Your task to perform on an android device: What's the weather going to be this weekend? Image 0: 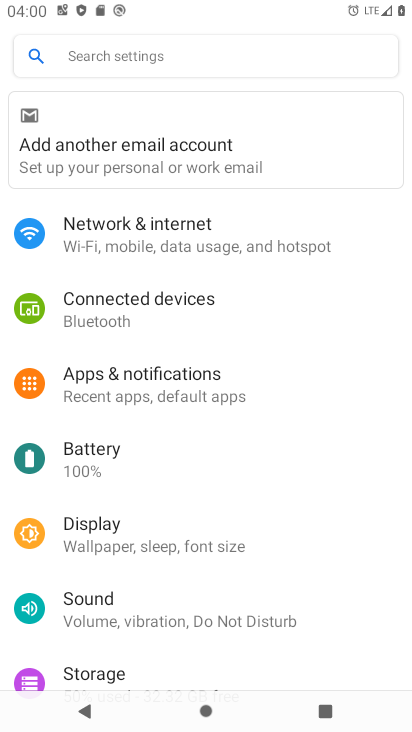
Step 0: press home button
Your task to perform on an android device: What's the weather going to be this weekend? Image 1: 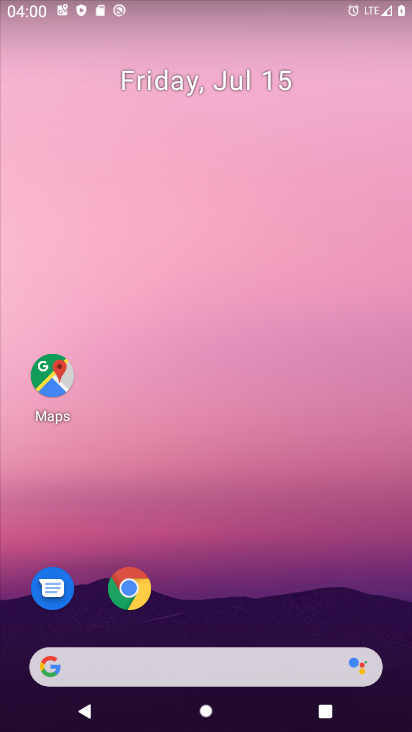
Step 1: drag from (174, 655) to (252, 214)
Your task to perform on an android device: What's the weather going to be this weekend? Image 2: 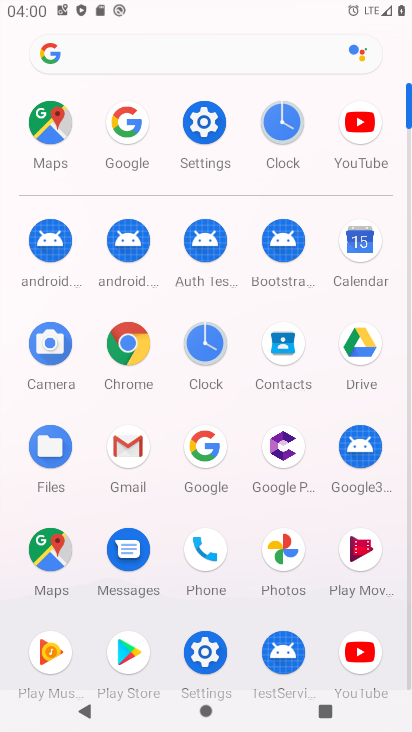
Step 2: click (201, 449)
Your task to perform on an android device: What's the weather going to be this weekend? Image 3: 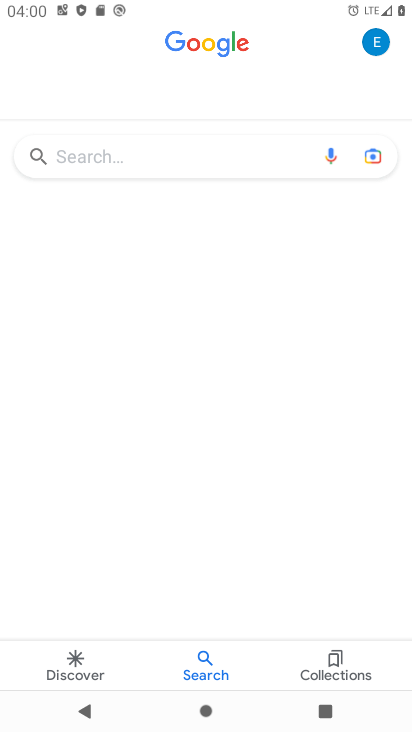
Step 3: click (209, 161)
Your task to perform on an android device: What's the weather going to be this weekend? Image 4: 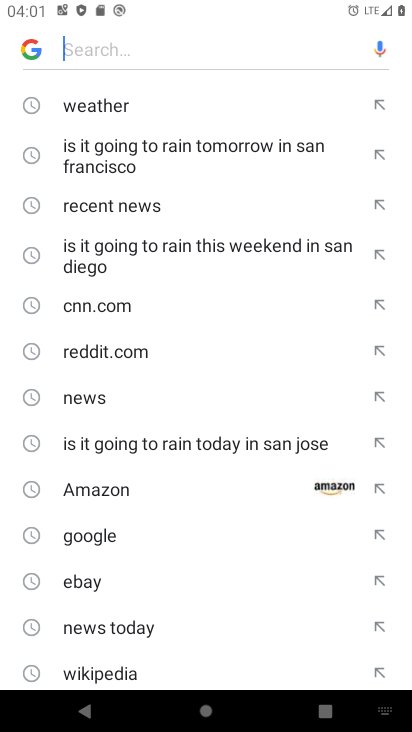
Step 4: type "What's the weather going to be this weekend?"
Your task to perform on an android device: What's the weather going to be this weekend? Image 5: 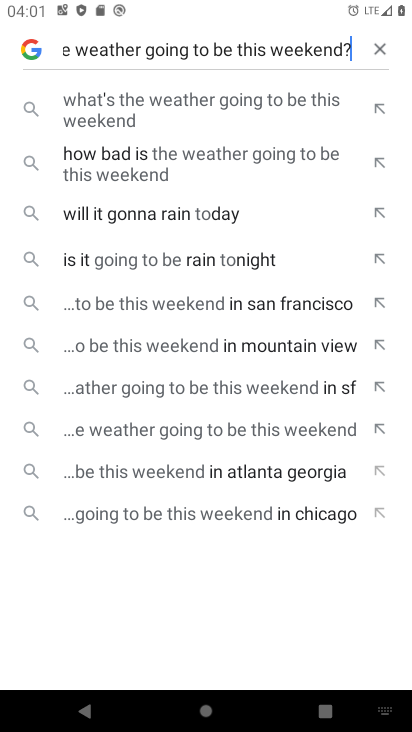
Step 5: click (107, 127)
Your task to perform on an android device: What's the weather going to be this weekend? Image 6: 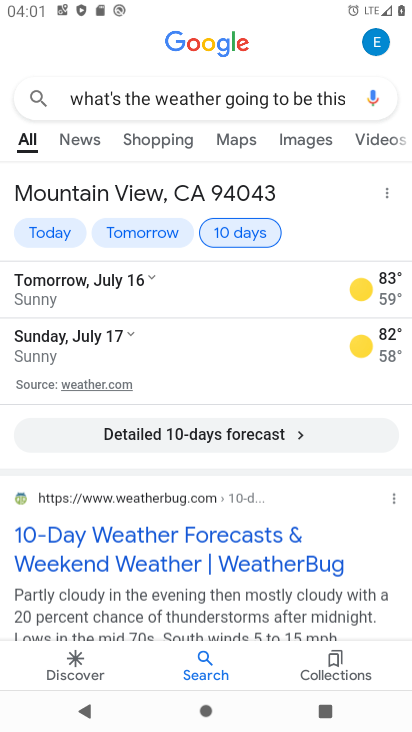
Step 6: task complete